Your task to perform on an android device: Check the news Image 0: 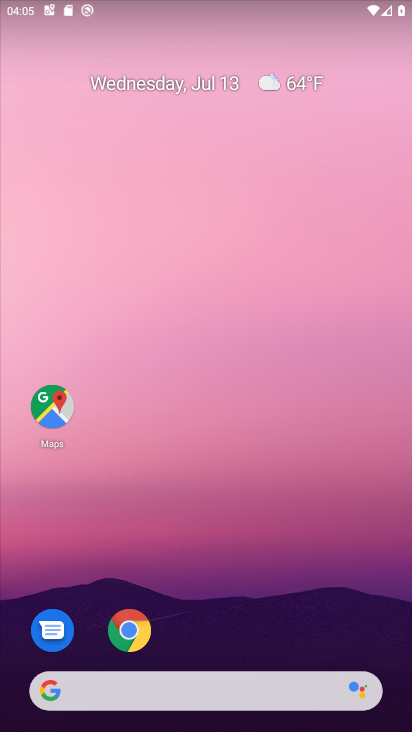
Step 0: click (258, 687)
Your task to perform on an android device: Check the news Image 1: 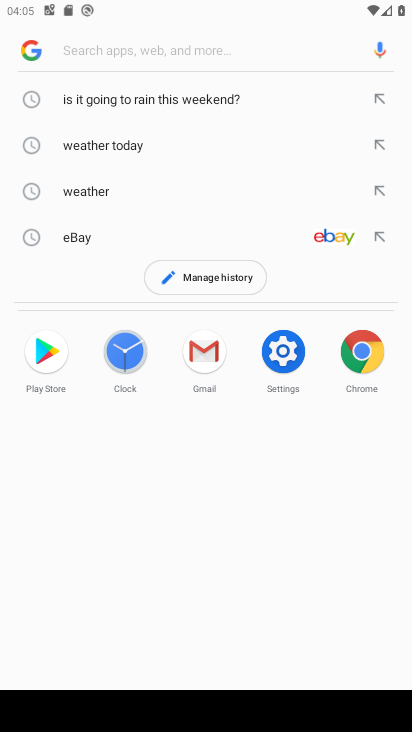
Step 1: click (32, 55)
Your task to perform on an android device: Check the news Image 2: 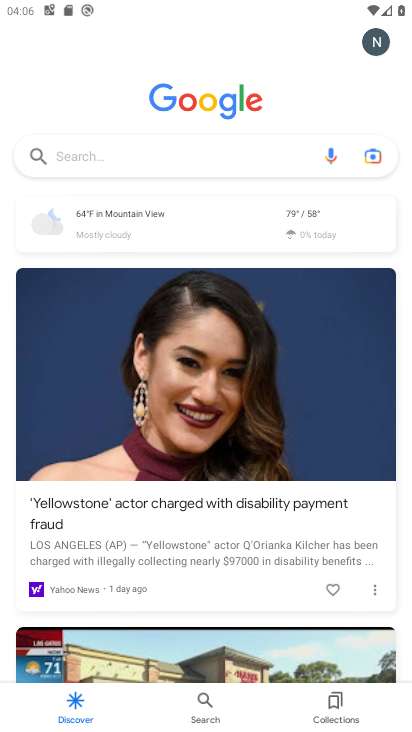
Step 2: task complete